Your task to perform on an android device: Go to wifi settings Image 0: 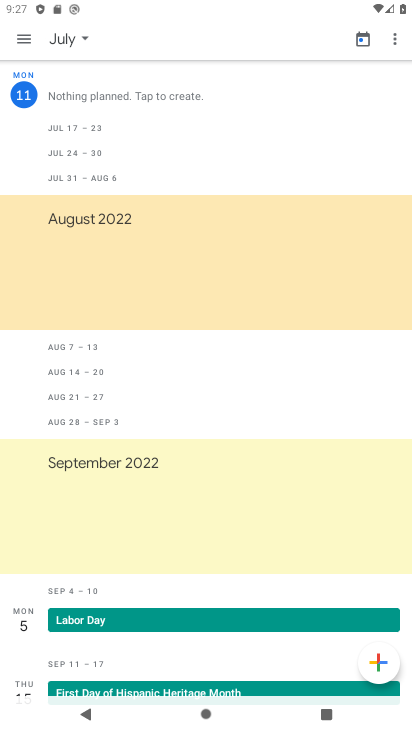
Step 0: press home button
Your task to perform on an android device: Go to wifi settings Image 1: 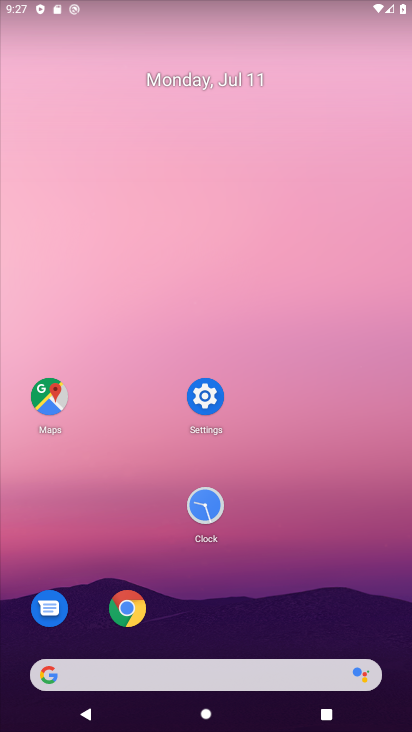
Step 1: click (195, 399)
Your task to perform on an android device: Go to wifi settings Image 2: 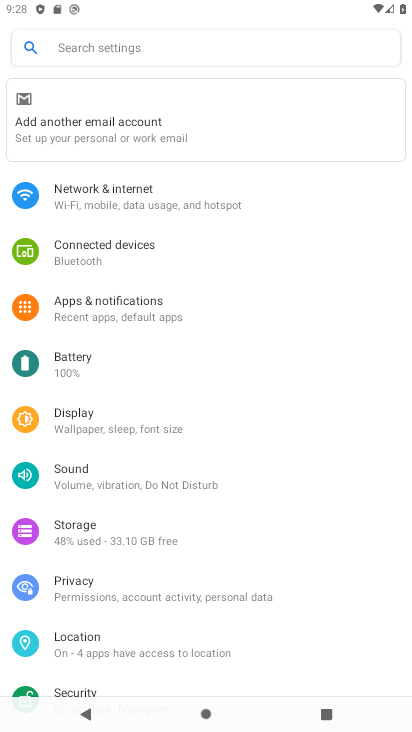
Step 2: click (119, 197)
Your task to perform on an android device: Go to wifi settings Image 3: 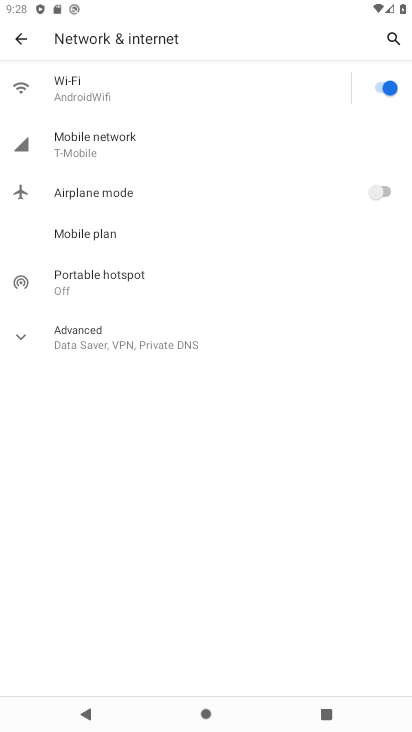
Step 3: click (234, 96)
Your task to perform on an android device: Go to wifi settings Image 4: 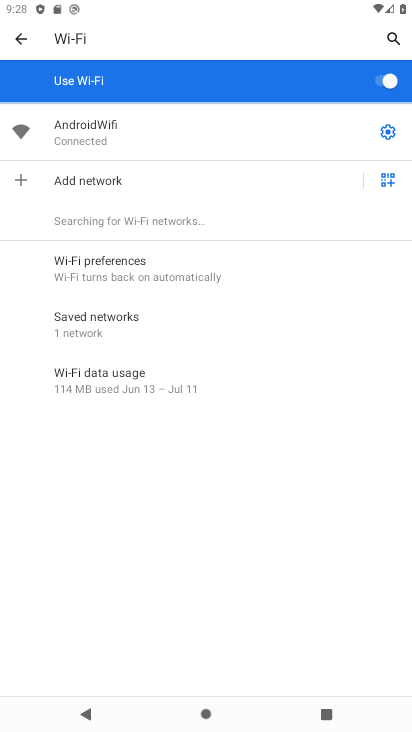
Step 4: click (383, 131)
Your task to perform on an android device: Go to wifi settings Image 5: 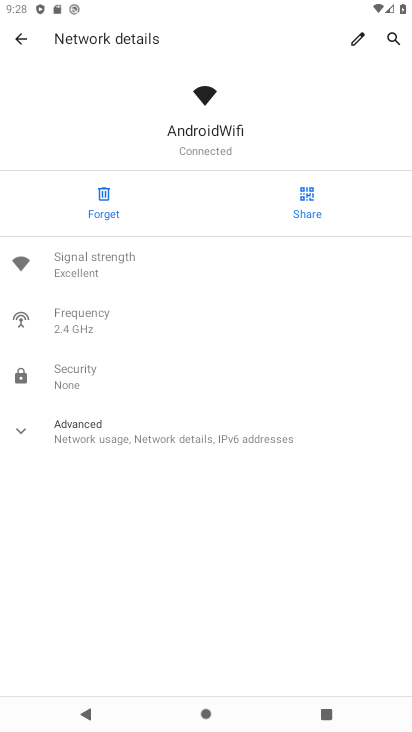
Step 5: task complete